Your task to perform on an android device: turn on location history Image 0: 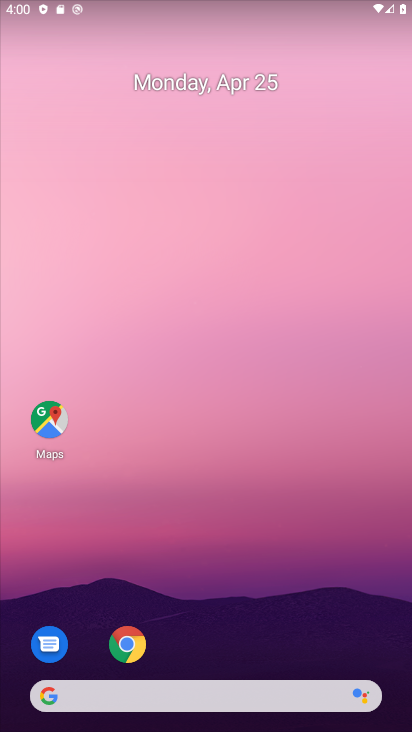
Step 0: drag from (204, 643) to (247, 241)
Your task to perform on an android device: turn on location history Image 1: 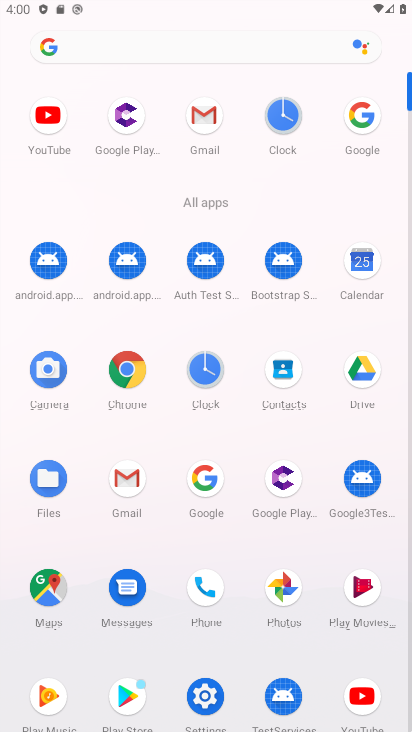
Step 1: click (195, 690)
Your task to perform on an android device: turn on location history Image 2: 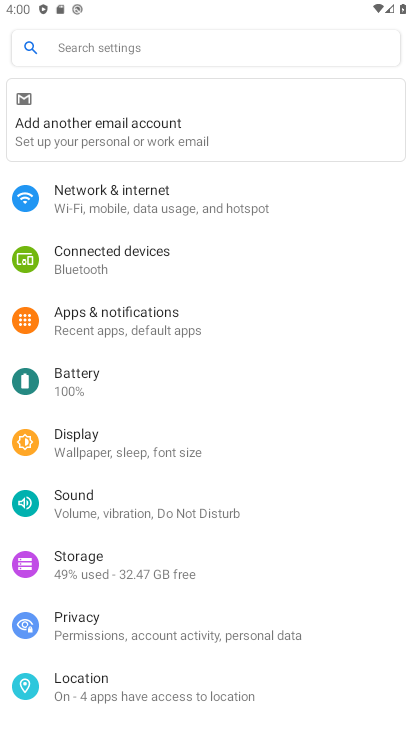
Step 2: click (113, 692)
Your task to perform on an android device: turn on location history Image 3: 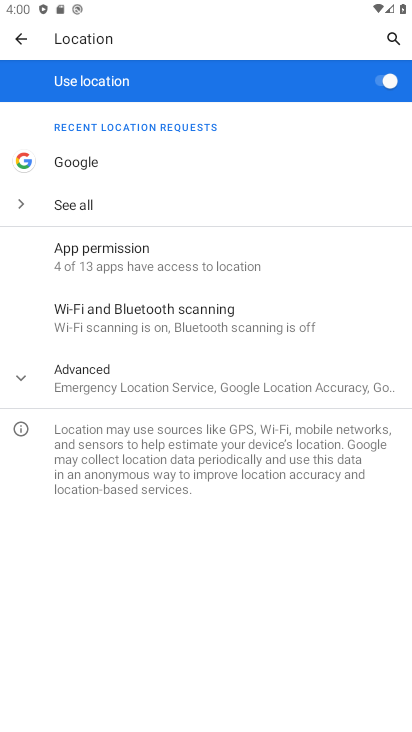
Step 3: click (139, 378)
Your task to perform on an android device: turn on location history Image 4: 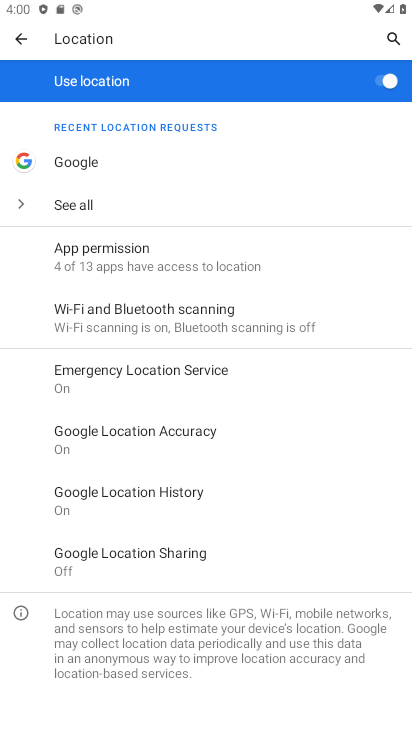
Step 4: click (171, 503)
Your task to perform on an android device: turn on location history Image 5: 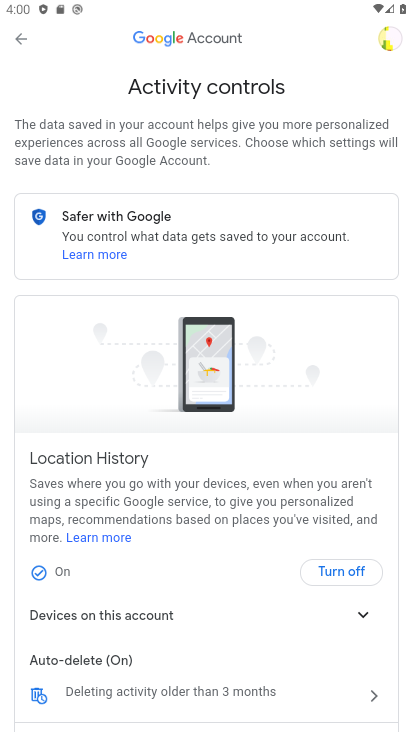
Step 5: task complete